Your task to perform on an android device: set default search engine in the chrome app Image 0: 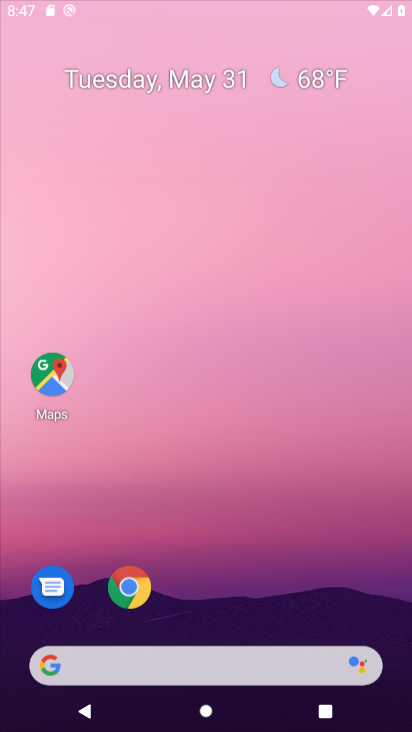
Step 0: click (292, 87)
Your task to perform on an android device: set default search engine in the chrome app Image 1: 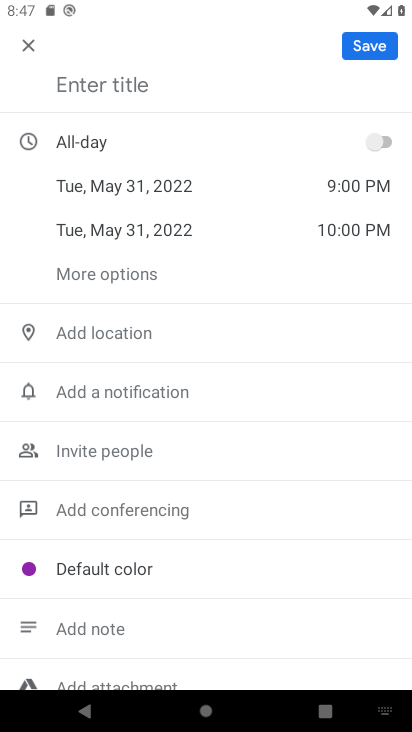
Step 1: press home button
Your task to perform on an android device: set default search engine in the chrome app Image 2: 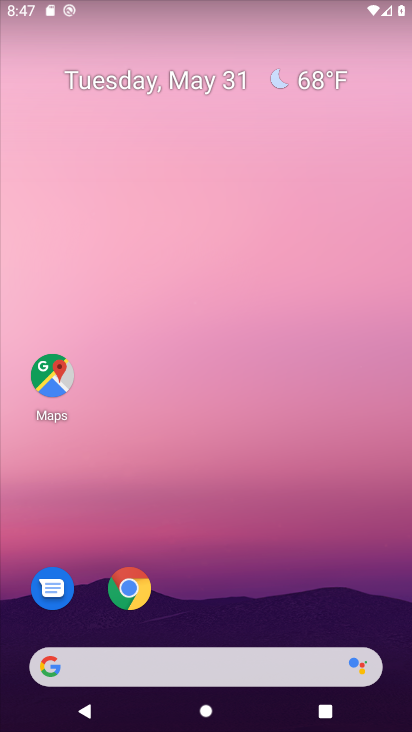
Step 2: click (132, 593)
Your task to perform on an android device: set default search engine in the chrome app Image 3: 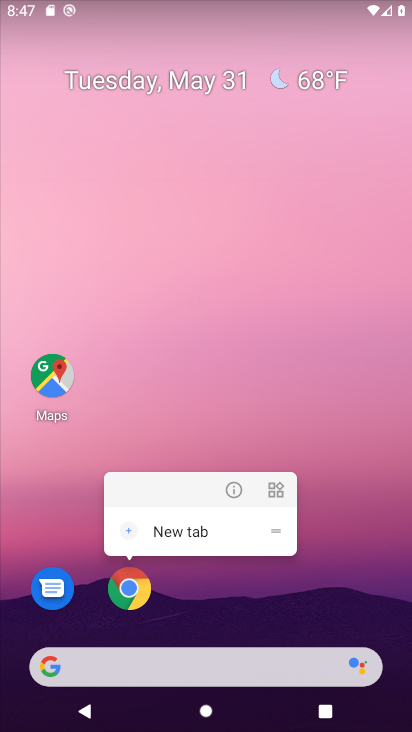
Step 3: click (132, 593)
Your task to perform on an android device: set default search engine in the chrome app Image 4: 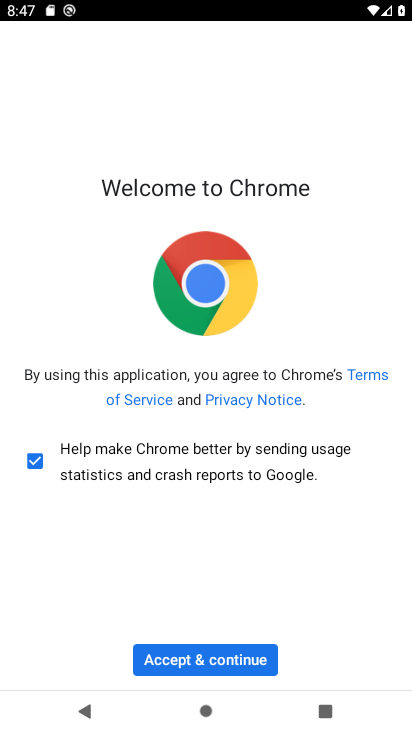
Step 4: click (197, 664)
Your task to perform on an android device: set default search engine in the chrome app Image 5: 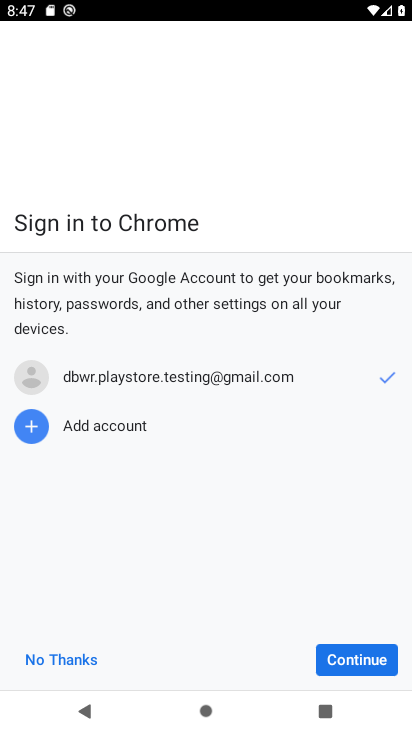
Step 5: click (326, 660)
Your task to perform on an android device: set default search engine in the chrome app Image 6: 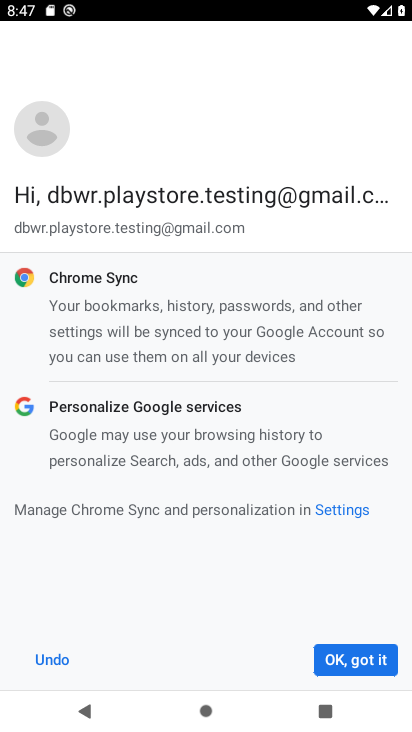
Step 6: click (329, 657)
Your task to perform on an android device: set default search engine in the chrome app Image 7: 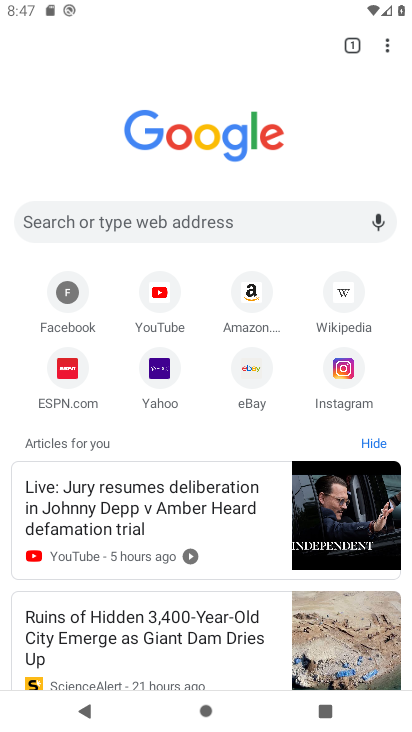
Step 7: drag from (385, 48) to (241, 385)
Your task to perform on an android device: set default search engine in the chrome app Image 8: 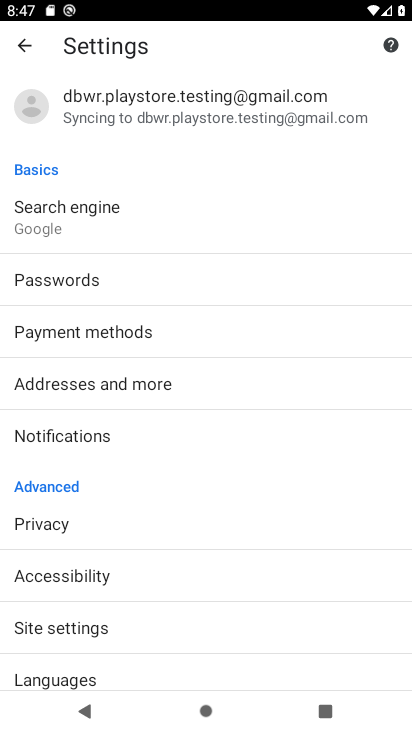
Step 8: click (89, 225)
Your task to perform on an android device: set default search engine in the chrome app Image 9: 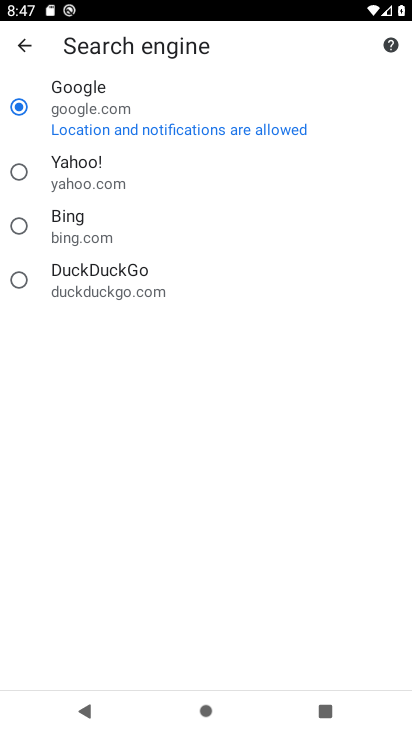
Step 9: click (22, 172)
Your task to perform on an android device: set default search engine in the chrome app Image 10: 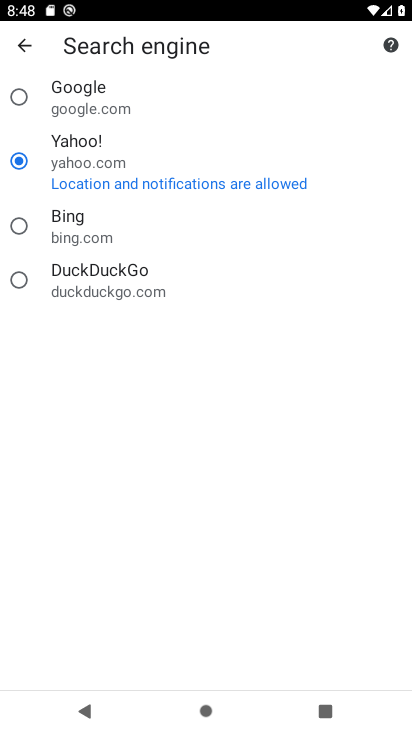
Step 10: task complete